Your task to perform on an android device: Go to Android settings Image 0: 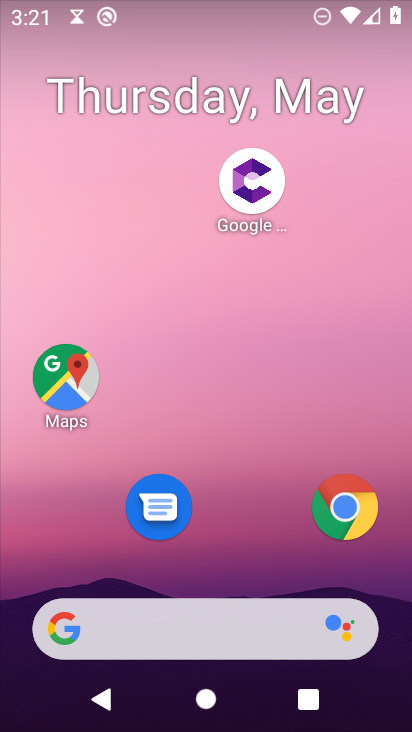
Step 0: drag from (308, 584) to (270, 0)
Your task to perform on an android device: Go to Android settings Image 1: 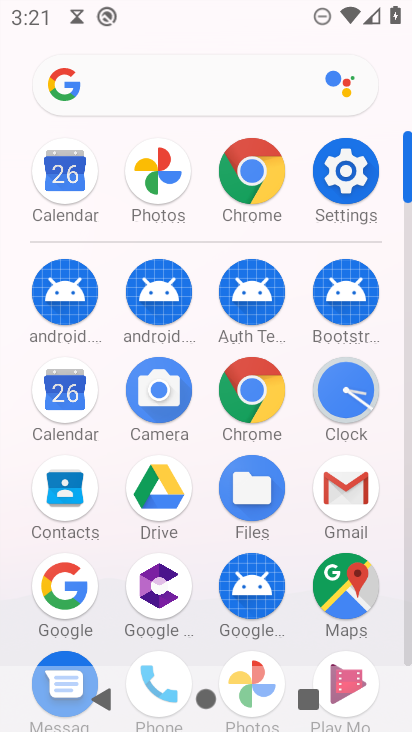
Step 1: click (357, 196)
Your task to perform on an android device: Go to Android settings Image 2: 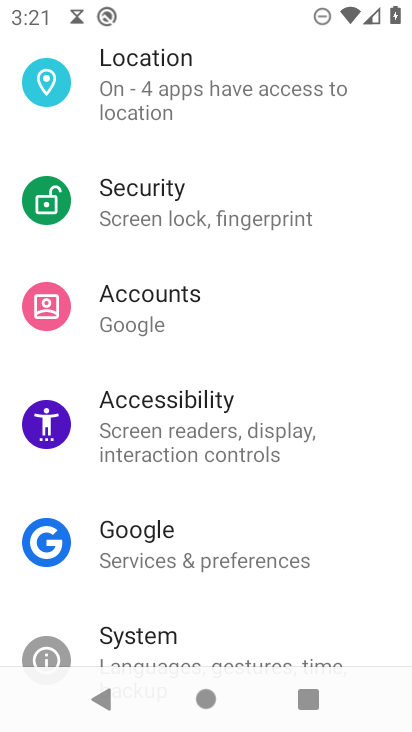
Step 2: drag from (349, 585) to (282, 5)
Your task to perform on an android device: Go to Android settings Image 3: 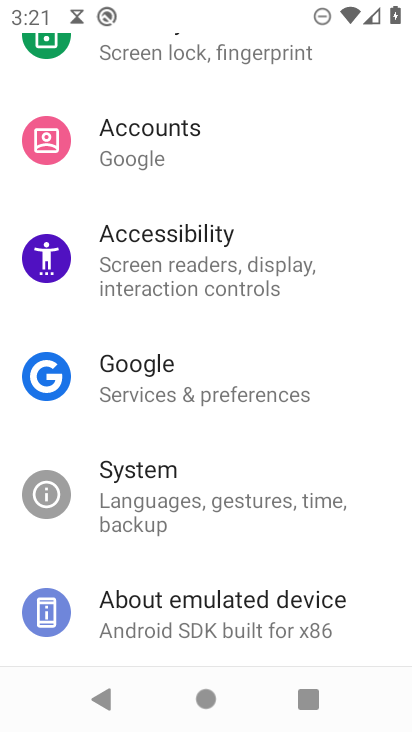
Step 3: click (214, 604)
Your task to perform on an android device: Go to Android settings Image 4: 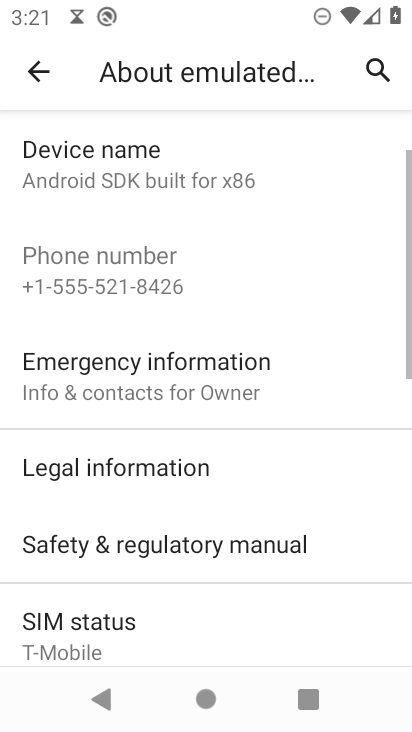
Step 4: task complete